Your task to perform on an android device: read, delete, or share a saved page in the chrome app Image 0: 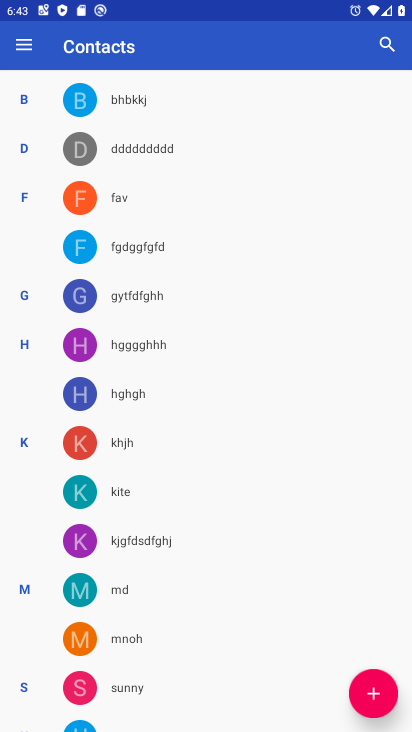
Step 0: press home button
Your task to perform on an android device: read, delete, or share a saved page in the chrome app Image 1: 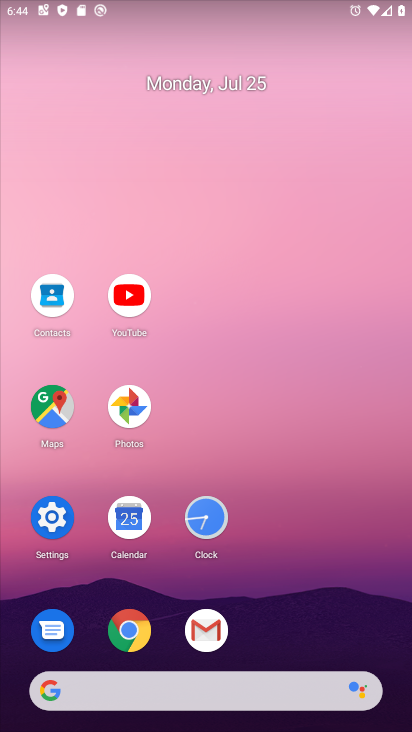
Step 1: click (130, 624)
Your task to perform on an android device: read, delete, or share a saved page in the chrome app Image 2: 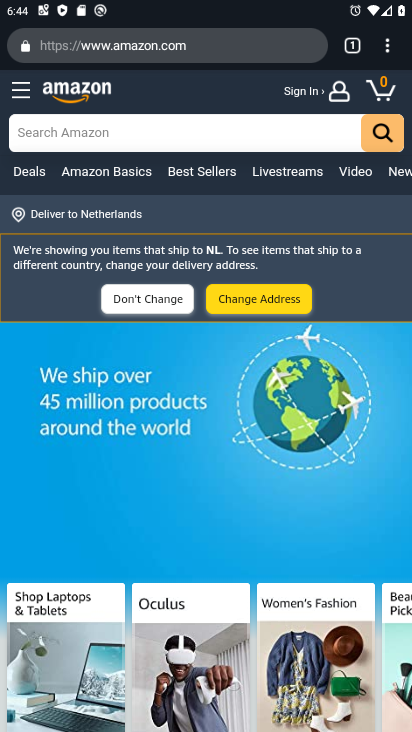
Step 2: click (394, 40)
Your task to perform on an android device: read, delete, or share a saved page in the chrome app Image 3: 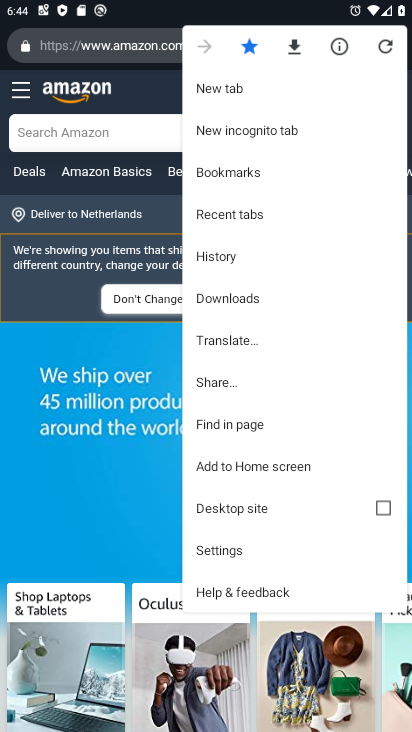
Step 3: click (228, 300)
Your task to perform on an android device: read, delete, or share a saved page in the chrome app Image 4: 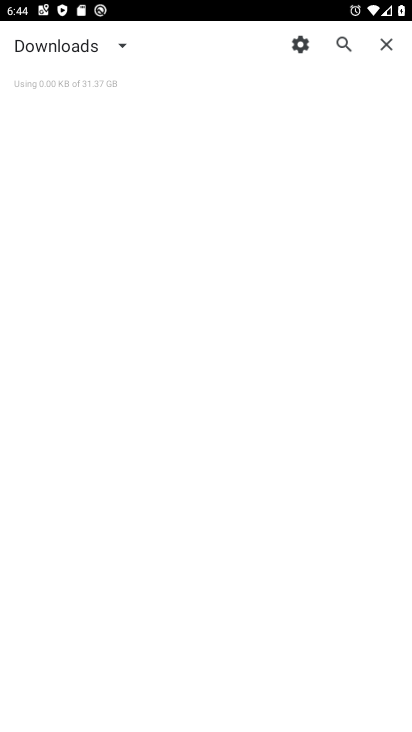
Step 4: task complete